Your task to perform on an android device: Open privacy settings Image 0: 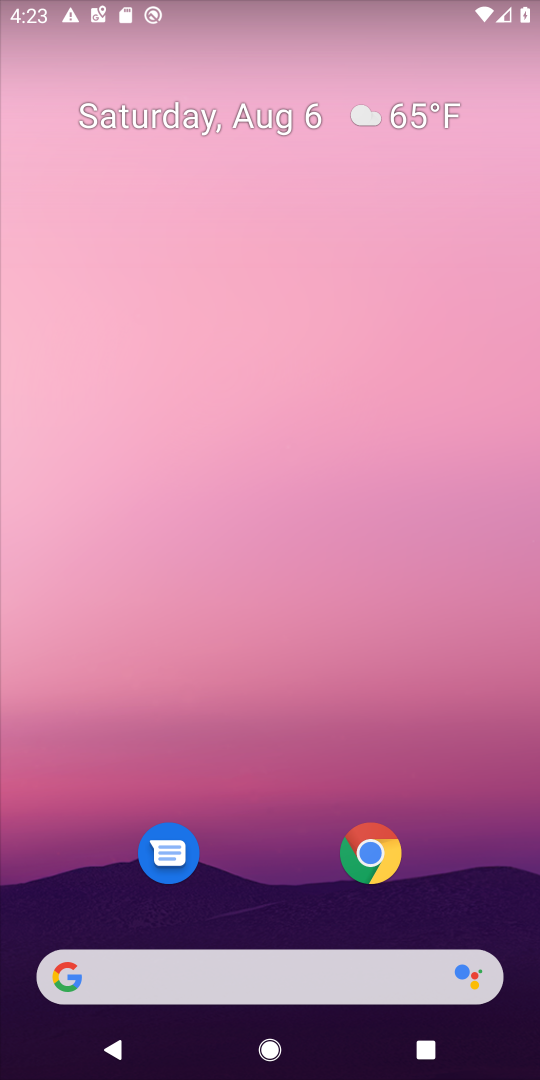
Step 0: drag from (292, 826) to (365, 222)
Your task to perform on an android device: Open privacy settings Image 1: 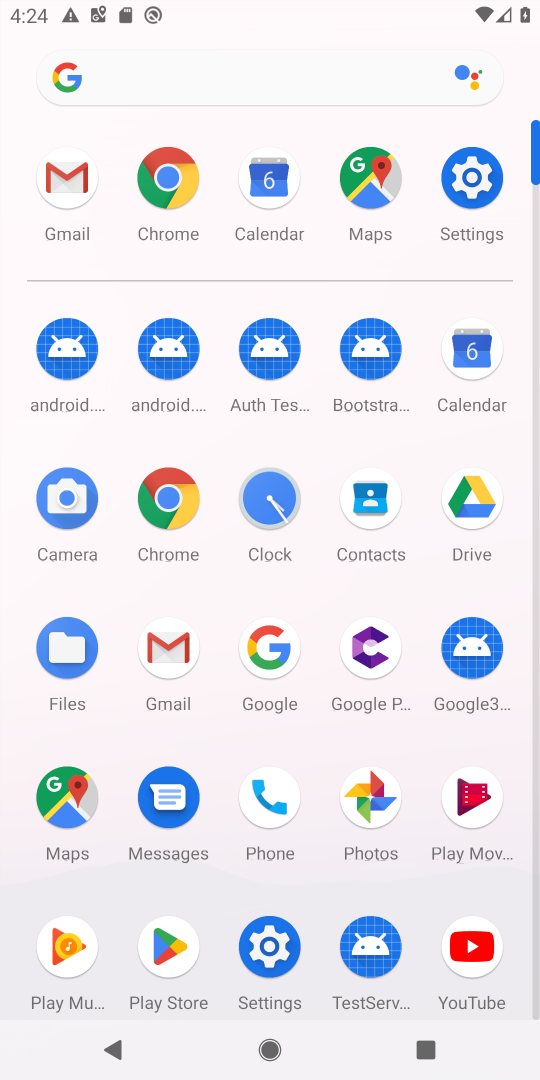
Step 1: click (474, 183)
Your task to perform on an android device: Open privacy settings Image 2: 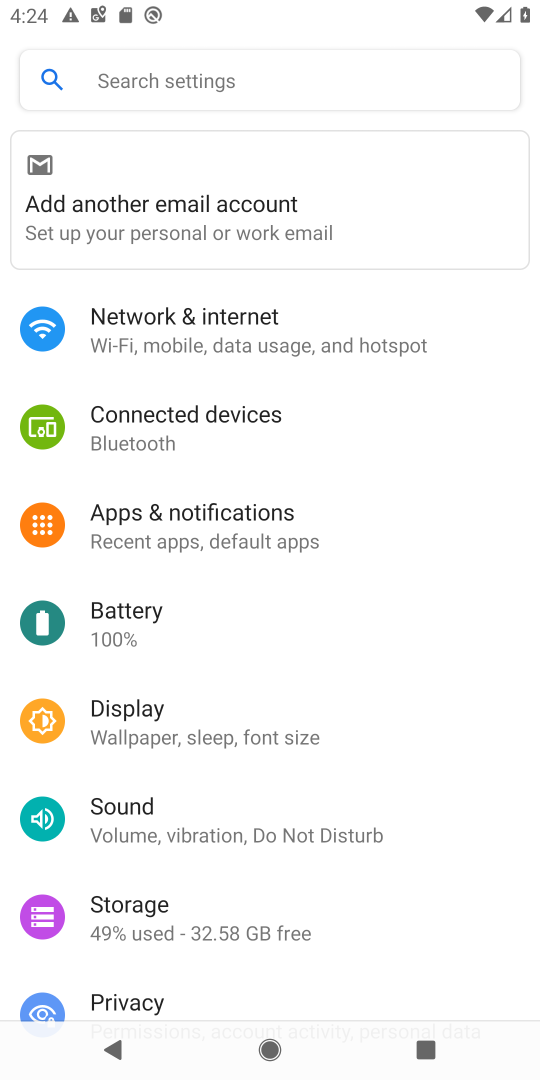
Step 2: click (126, 991)
Your task to perform on an android device: Open privacy settings Image 3: 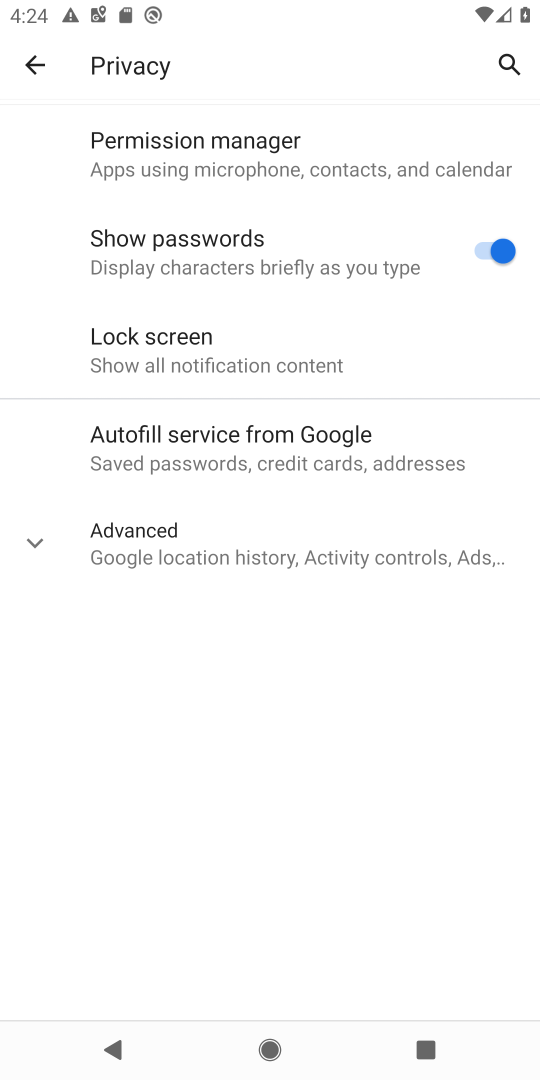
Step 3: task complete